Your task to perform on an android device: What's a good restaurant in Atlanta? Image 0: 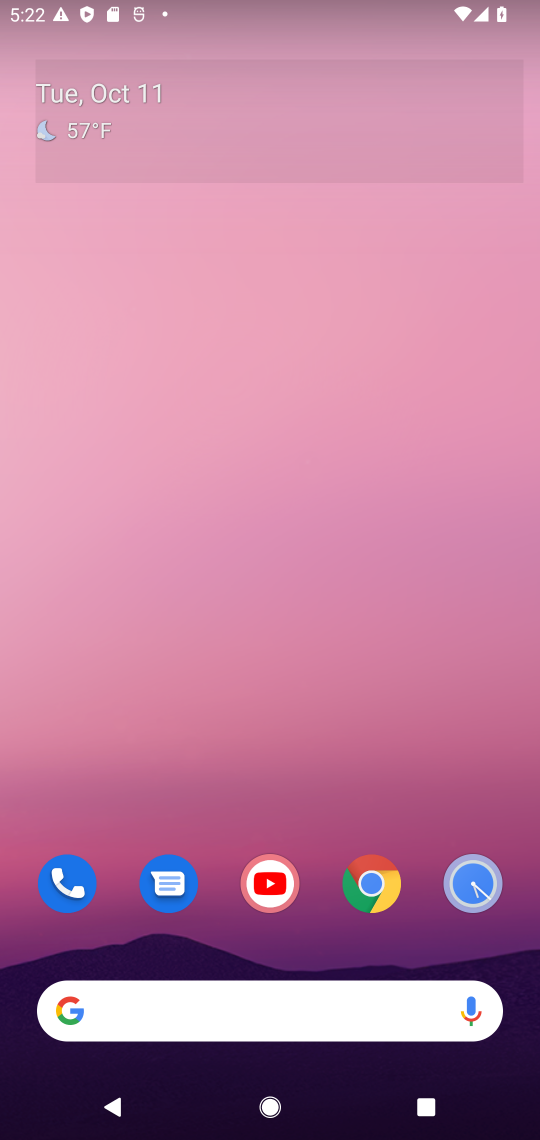
Step 0: drag from (337, 796) to (223, 48)
Your task to perform on an android device: What's a good restaurant in Atlanta? Image 1: 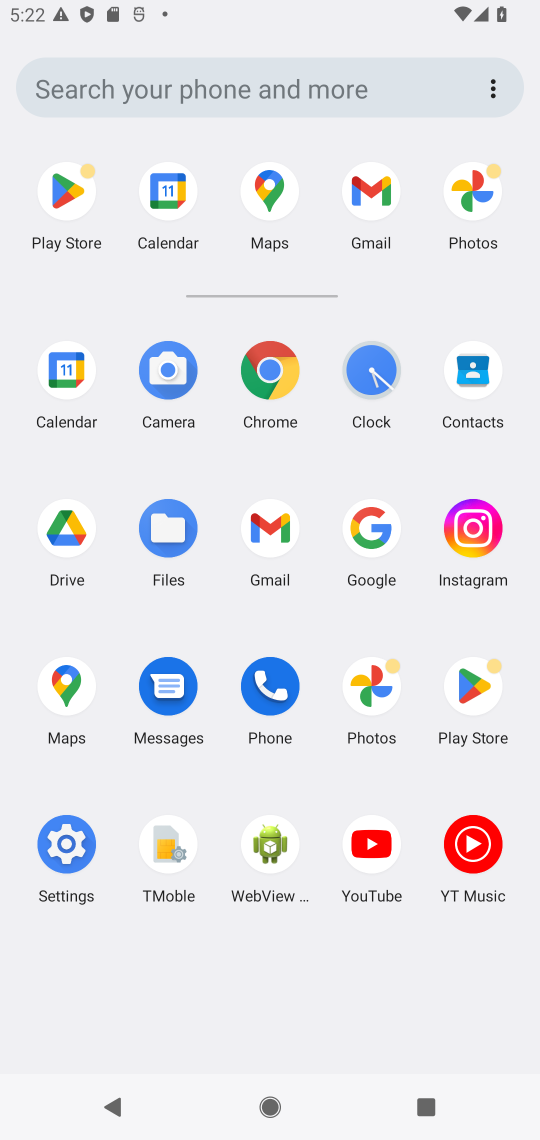
Step 1: click (267, 370)
Your task to perform on an android device: What's a good restaurant in Atlanta? Image 2: 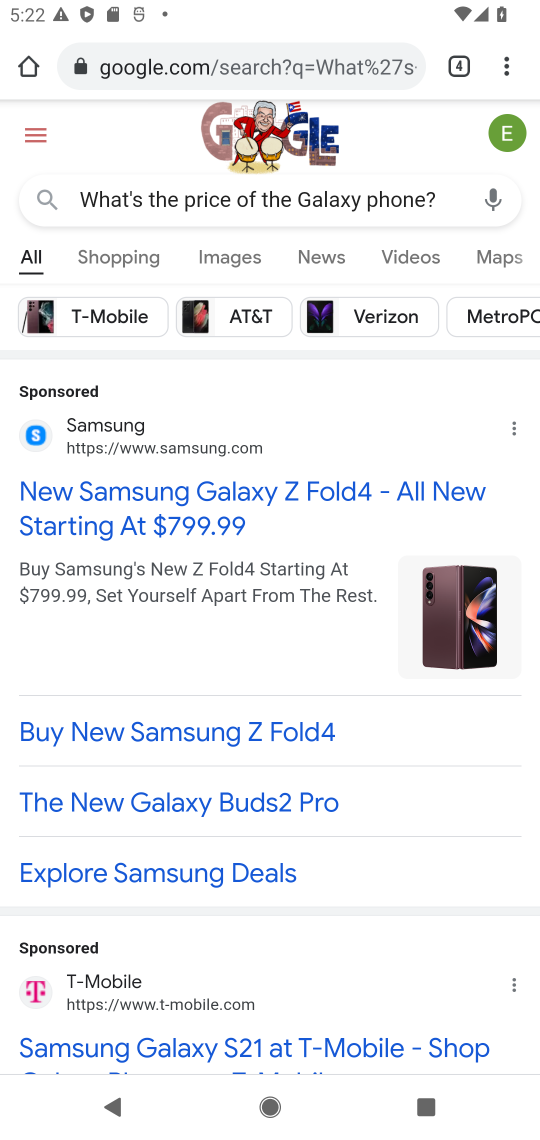
Step 2: click (401, 200)
Your task to perform on an android device: What's a good restaurant in Atlanta? Image 3: 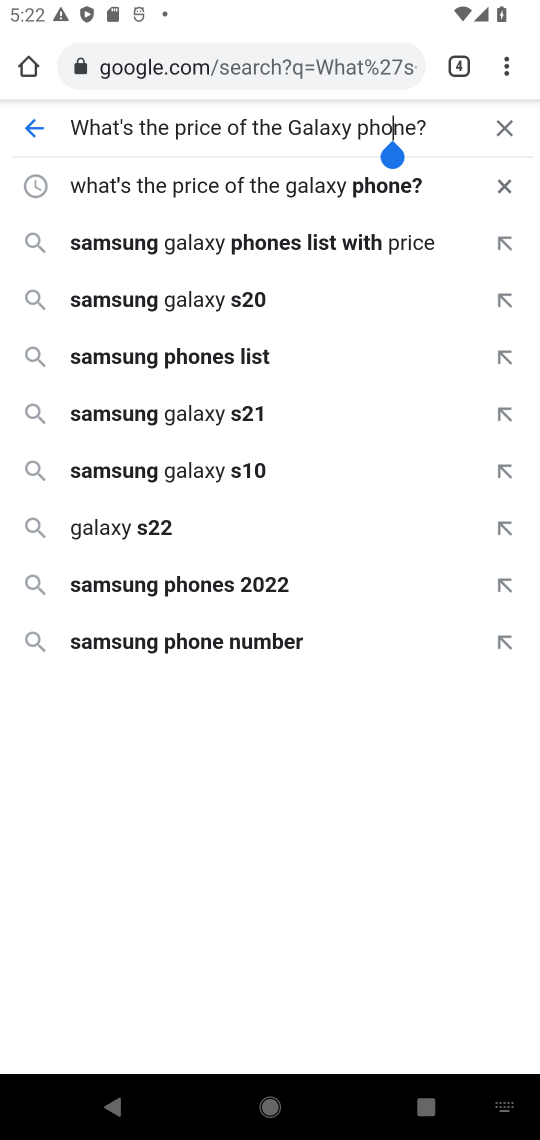
Step 3: click (504, 139)
Your task to perform on an android device: What's a good restaurant in Atlanta? Image 4: 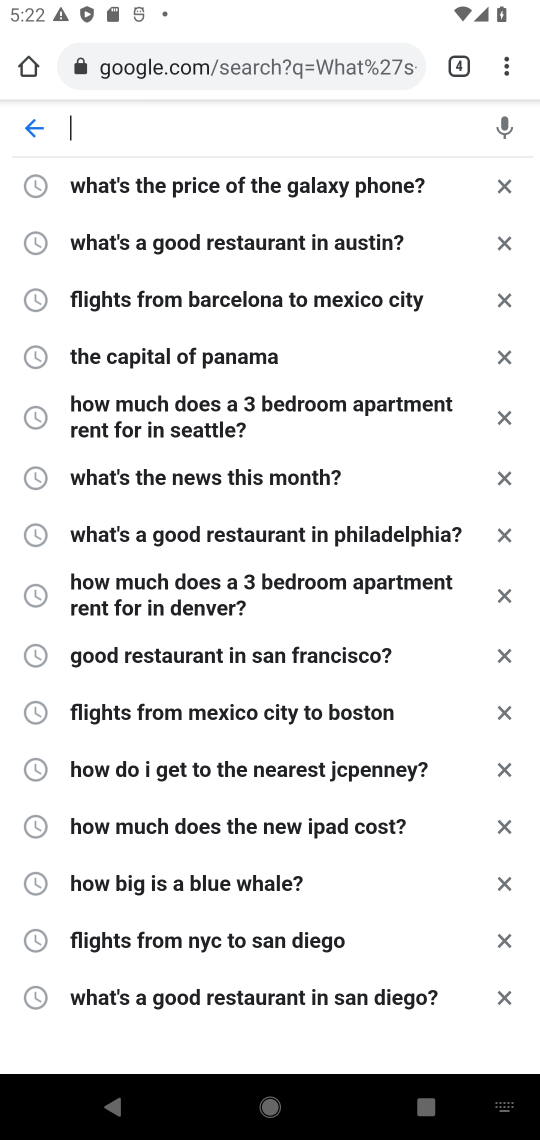
Step 4: type "What's a good restaurant in Atlanta?"
Your task to perform on an android device: What's a good restaurant in Atlanta? Image 5: 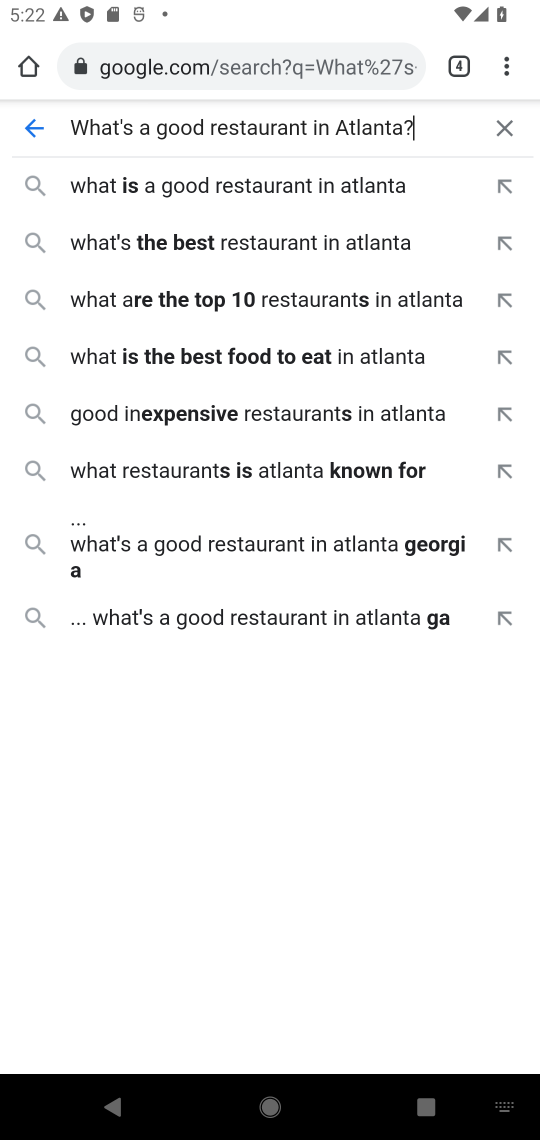
Step 5: press enter
Your task to perform on an android device: What's a good restaurant in Atlanta? Image 6: 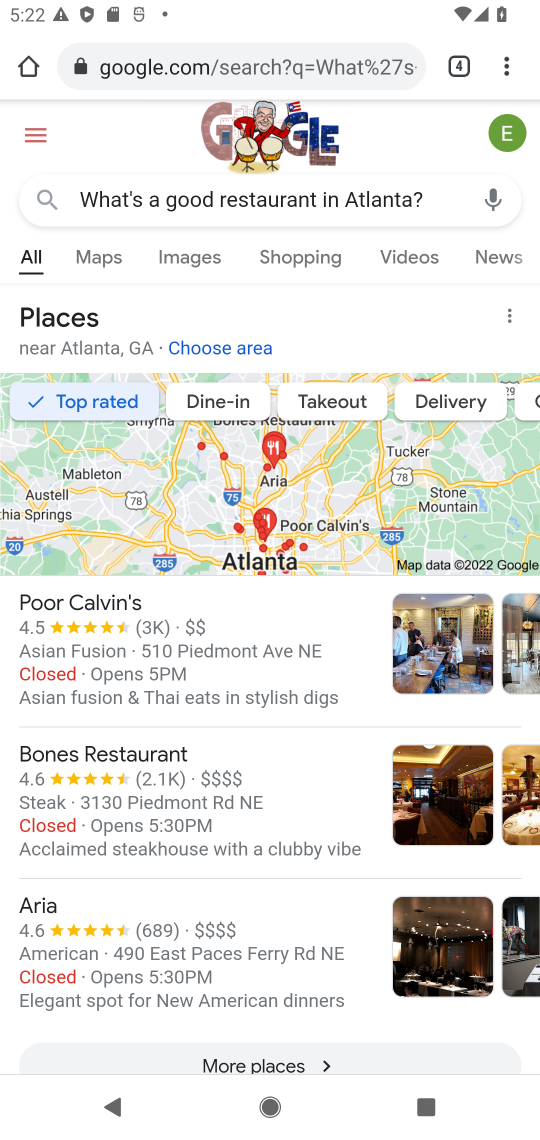
Step 6: task complete